Your task to perform on an android device: turn on javascript in the chrome app Image 0: 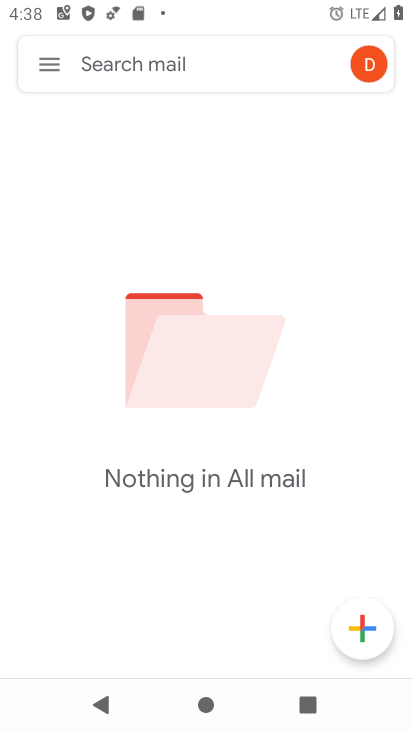
Step 0: press back button
Your task to perform on an android device: turn on javascript in the chrome app Image 1: 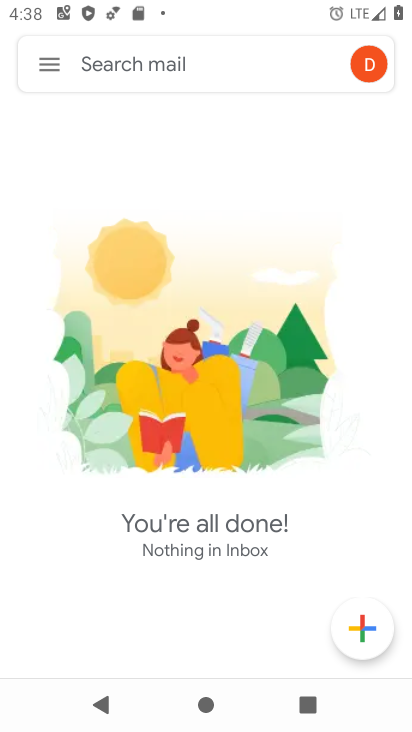
Step 1: press home button
Your task to perform on an android device: turn on javascript in the chrome app Image 2: 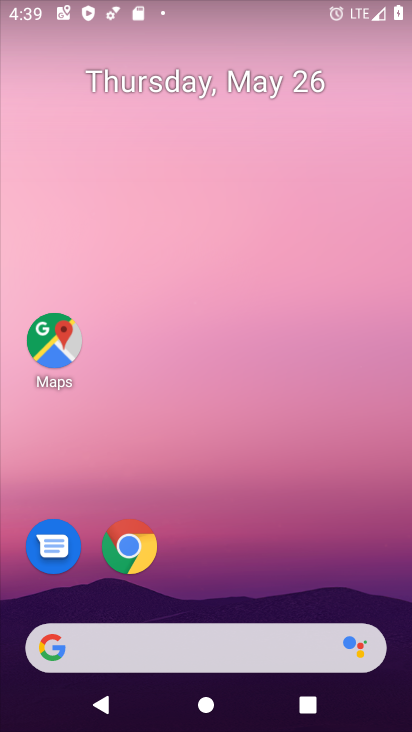
Step 2: click (129, 542)
Your task to perform on an android device: turn on javascript in the chrome app Image 3: 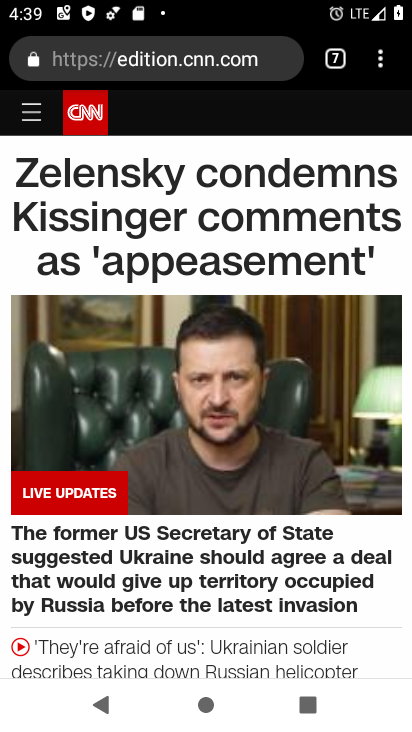
Step 3: drag from (384, 44) to (216, 570)
Your task to perform on an android device: turn on javascript in the chrome app Image 4: 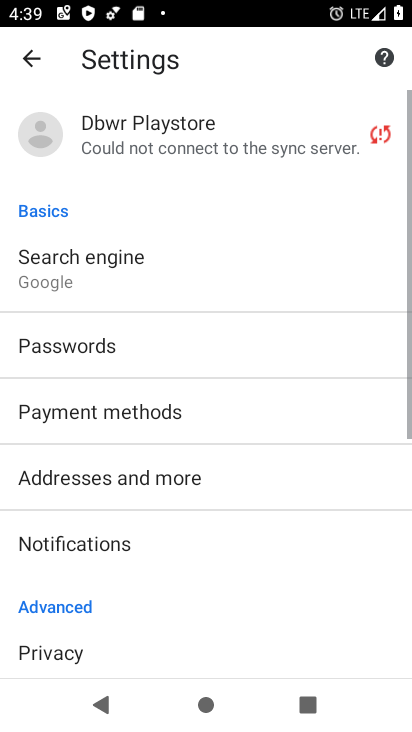
Step 4: drag from (190, 556) to (269, 9)
Your task to perform on an android device: turn on javascript in the chrome app Image 5: 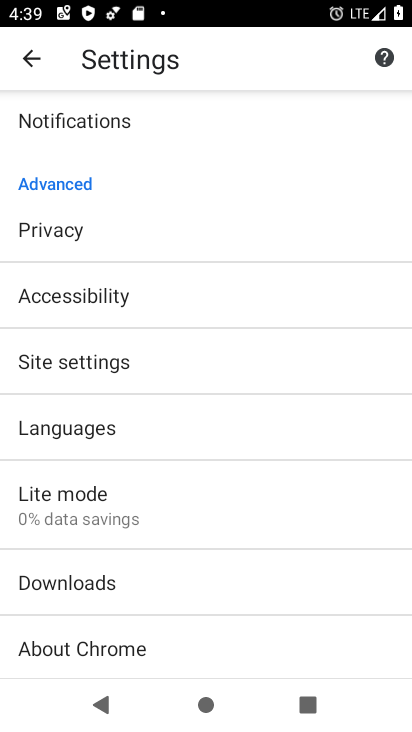
Step 5: click (82, 360)
Your task to perform on an android device: turn on javascript in the chrome app Image 6: 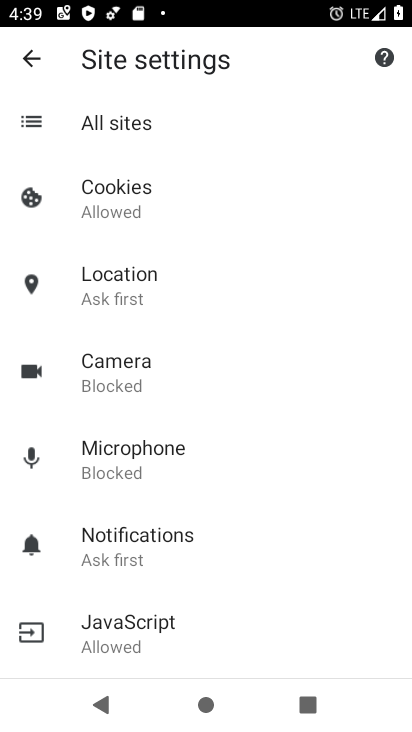
Step 6: click (114, 630)
Your task to perform on an android device: turn on javascript in the chrome app Image 7: 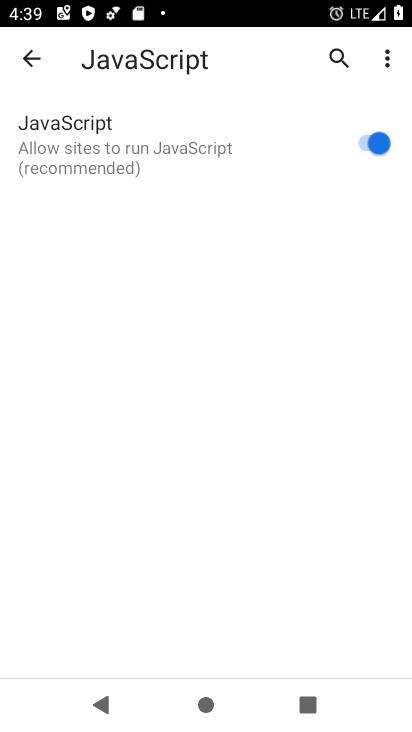
Step 7: task complete